Your task to perform on an android device: open the mobile data screen to see how much data has been used Image 0: 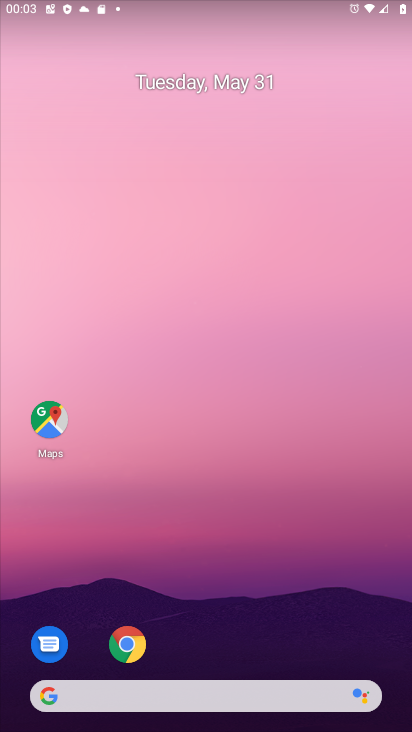
Step 0: drag from (393, 651) to (322, 245)
Your task to perform on an android device: open the mobile data screen to see how much data has been used Image 1: 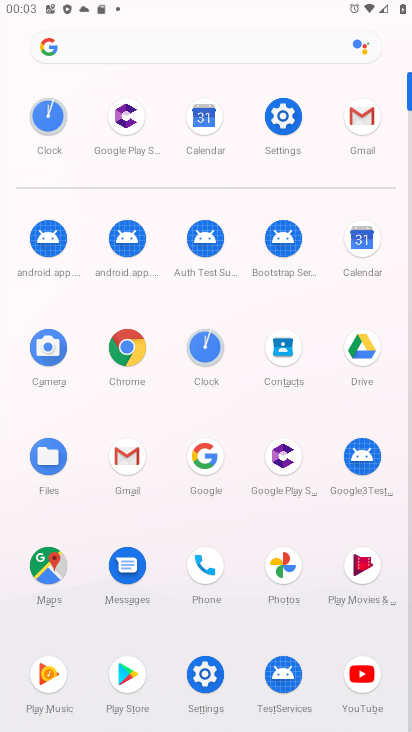
Step 1: click (204, 674)
Your task to perform on an android device: open the mobile data screen to see how much data has been used Image 2: 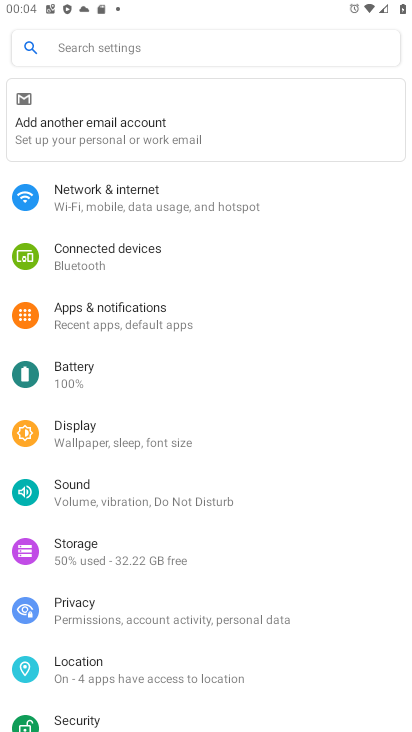
Step 2: click (108, 181)
Your task to perform on an android device: open the mobile data screen to see how much data has been used Image 3: 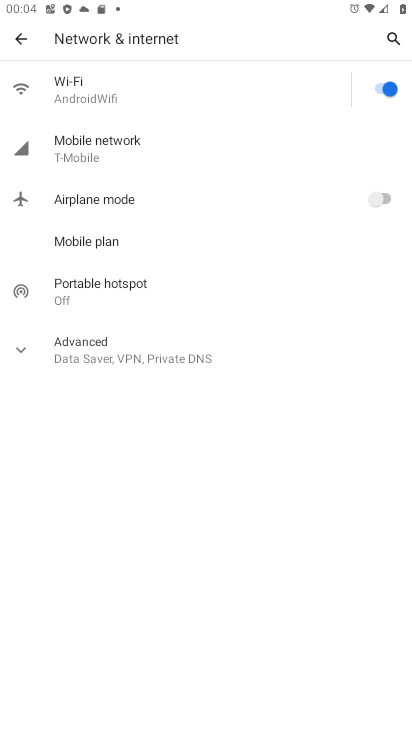
Step 3: click (87, 139)
Your task to perform on an android device: open the mobile data screen to see how much data has been used Image 4: 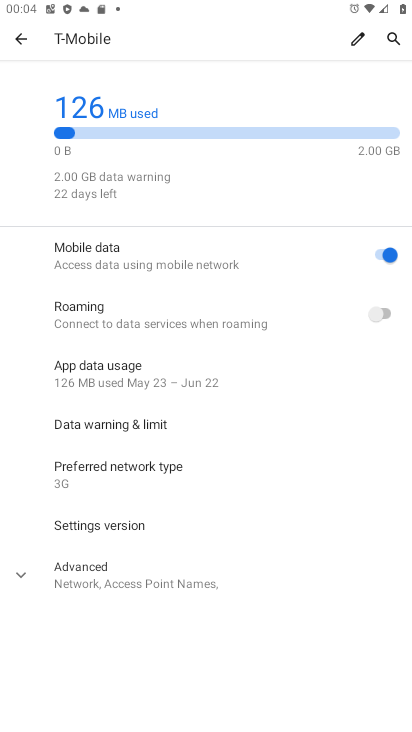
Step 4: task complete